Your task to perform on an android device: turn on improve location accuracy Image 0: 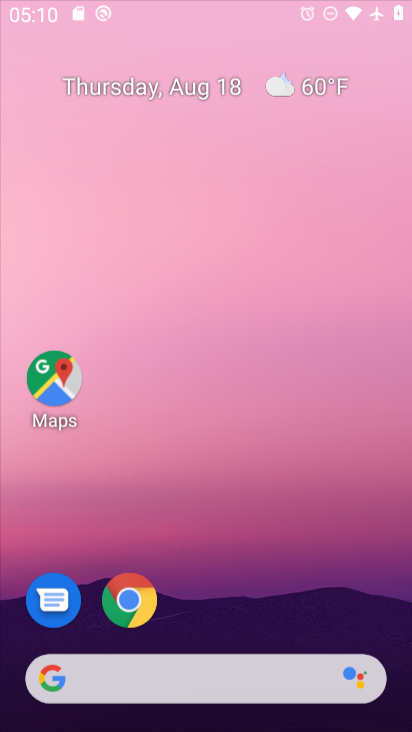
Step 0: press home button
Your task to perform on an android device: turn on improve location accuracy Image 1: 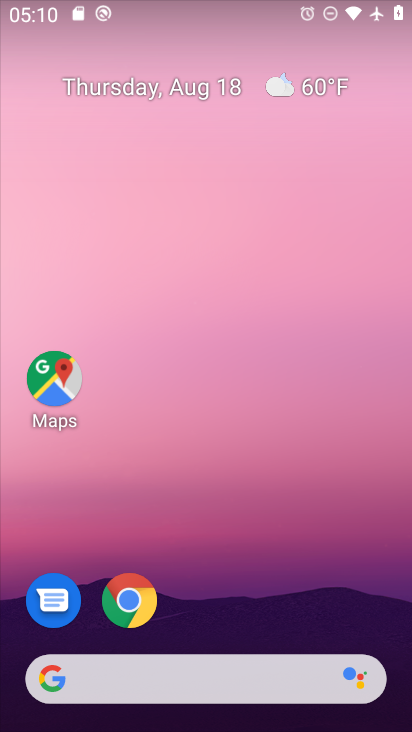
Step 1: press home button
Your task to perform on an android device: turn on improve location accuracy Image 2: 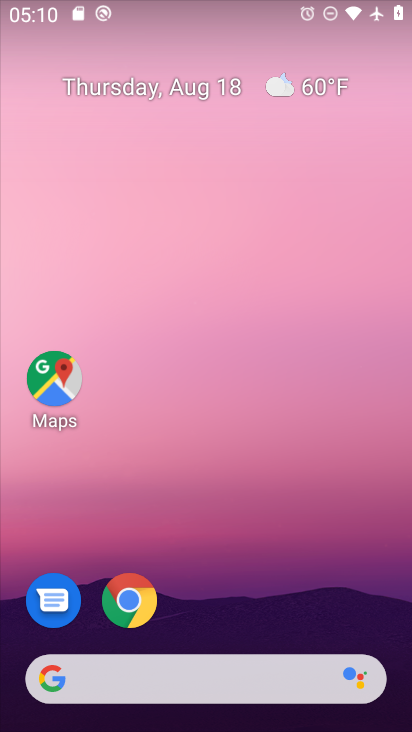
Step 2: drag from (251, 628) to (348, 72)
Your task to perform on an android device: turn on improve location accuracy Image 3: 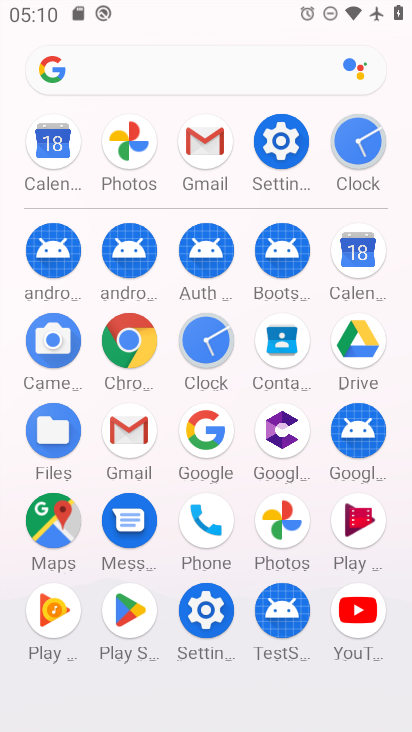
Step 3: click (271, 144)
Your task to perform on an android device: turn on improve location accuracy Image 4: 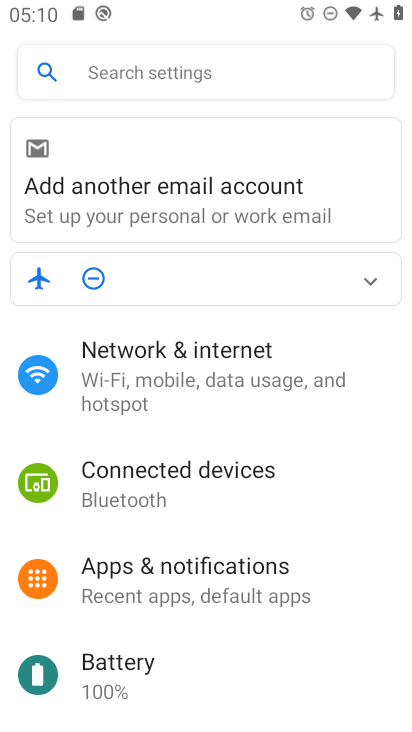
Step 4: drag from (276, 639) to (325, 0)
Your task to perform on an android device: turn on improve location accuracy Image 5: 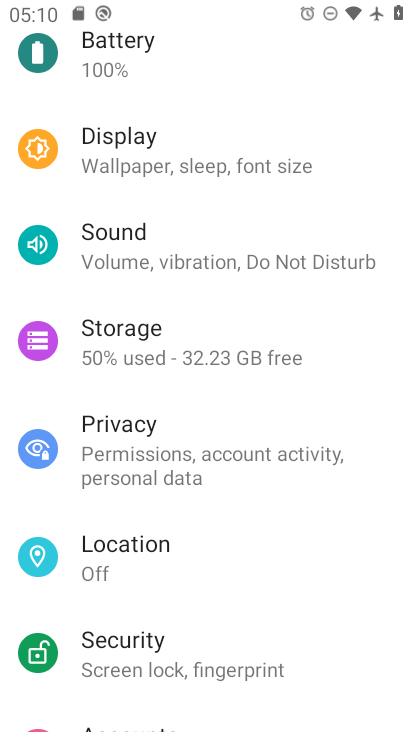
Step 5: click (109, 551)
Your task to perform on an android device: turn on improve location accuracy Image 6: 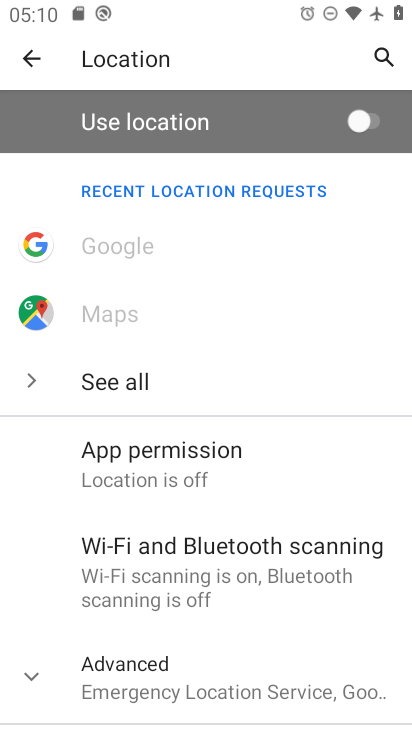
Step 6: click (133, 681)
Your task to perform on an android device: turn on improve location accuracy Image 7: 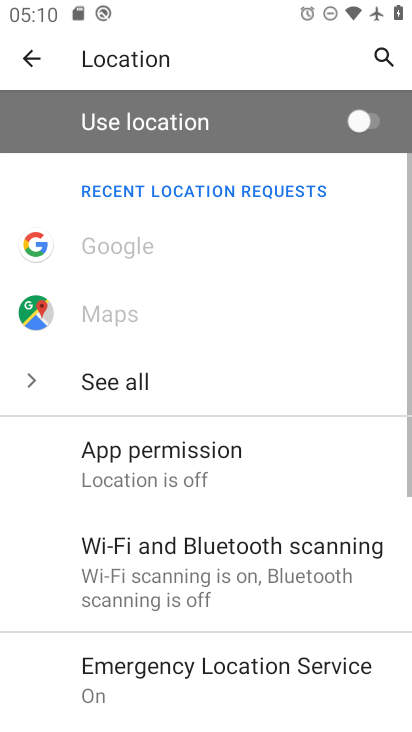
Step 7: drag from (323, 695) to (398, 2)
Your task to perform on an android device: turn on improve location accuracy Image 8: 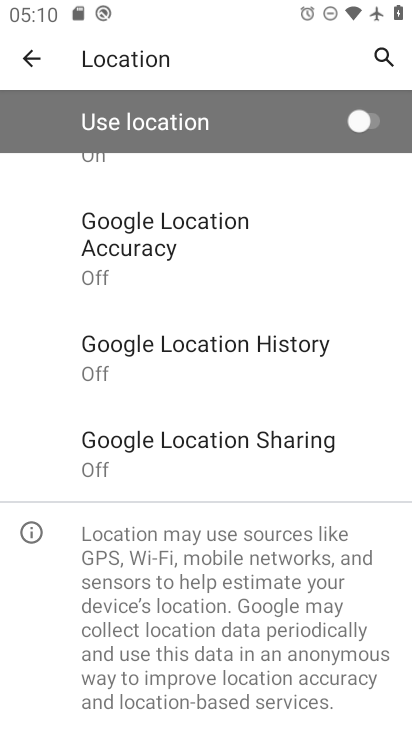
Step 8: click (139, 249)
Your task to perform on an android device: turn on improve location accuracy Image 9: 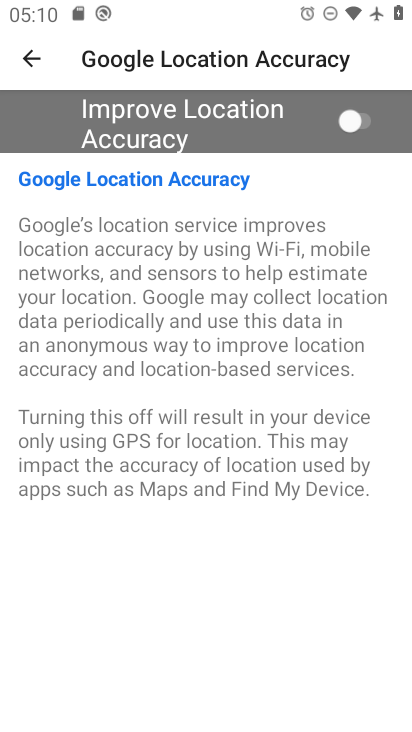
Step 9: click (347, 117)
Your task to perform on an android device: turn on improve location accuracy Image 10: 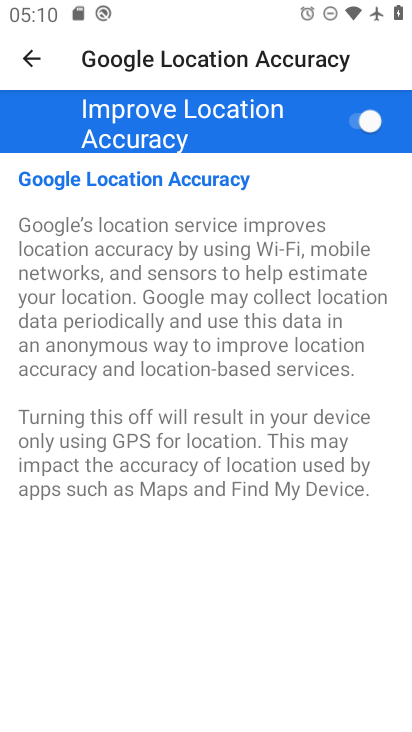
Step 10: task complete